Your task to perform on an android device: show emergency info Image 0: 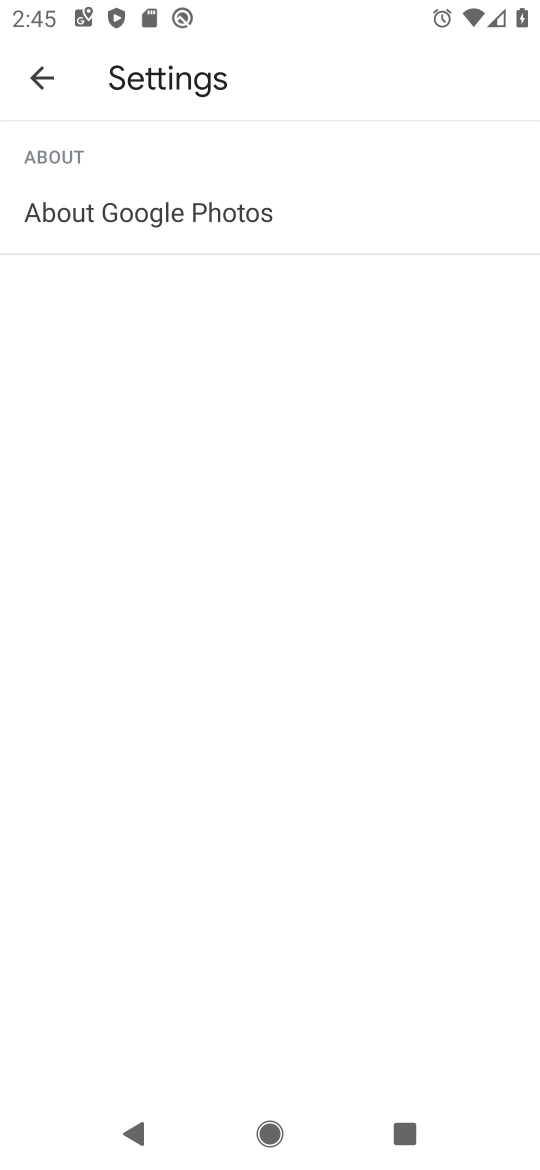
Step 0: press home button
Your task to perform on an android device: show emergency info Image 1: 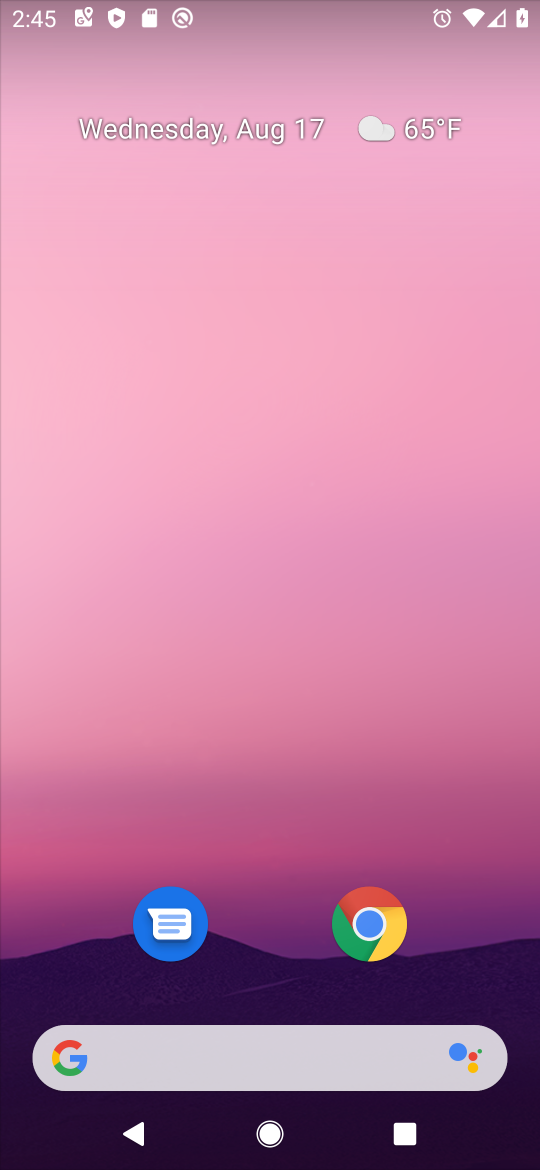
Step 1: drag from (217, 1058) to (150, 98)
Your task to perform on an android device: show emergency info Image 2: 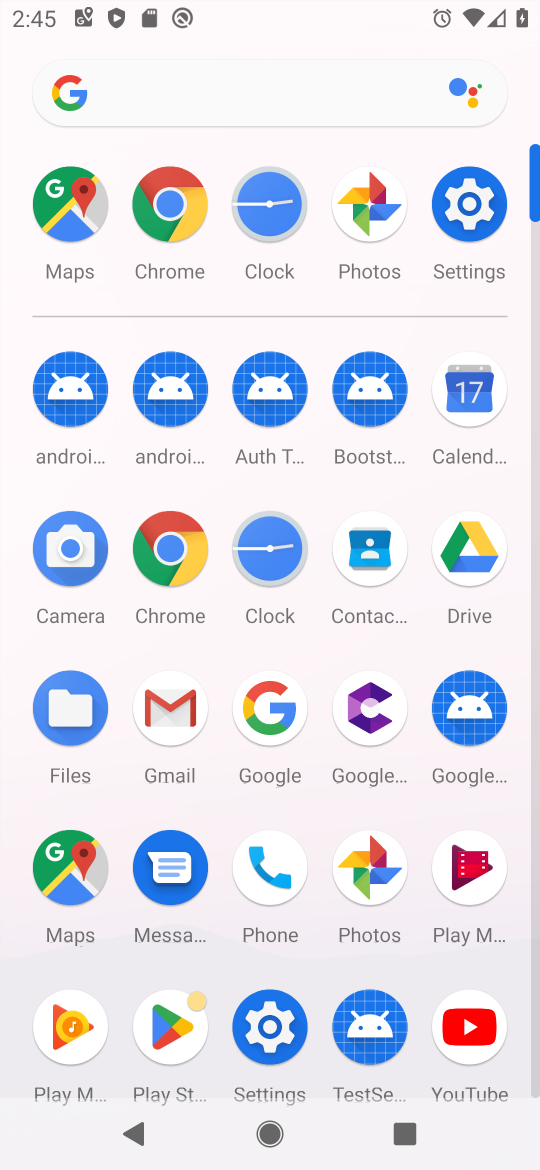
Step 2: click (471, 204)
Your task to perform on an android device: show emergency info Image 3: 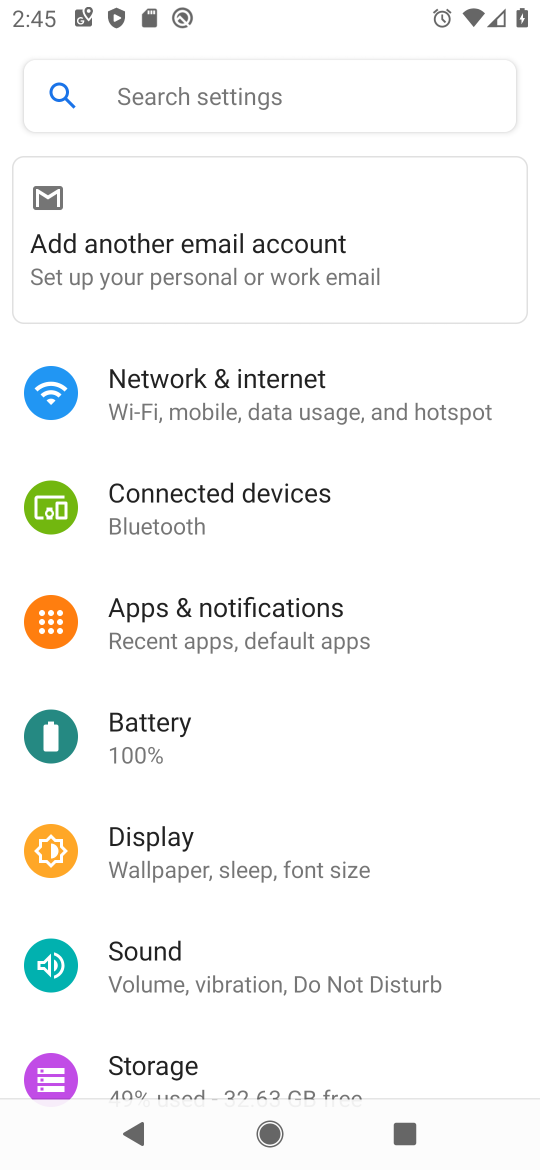
Step 3: drag from (250, 813) to (301, 587)
Your task to perform on an android device: show emergency info Image 4: 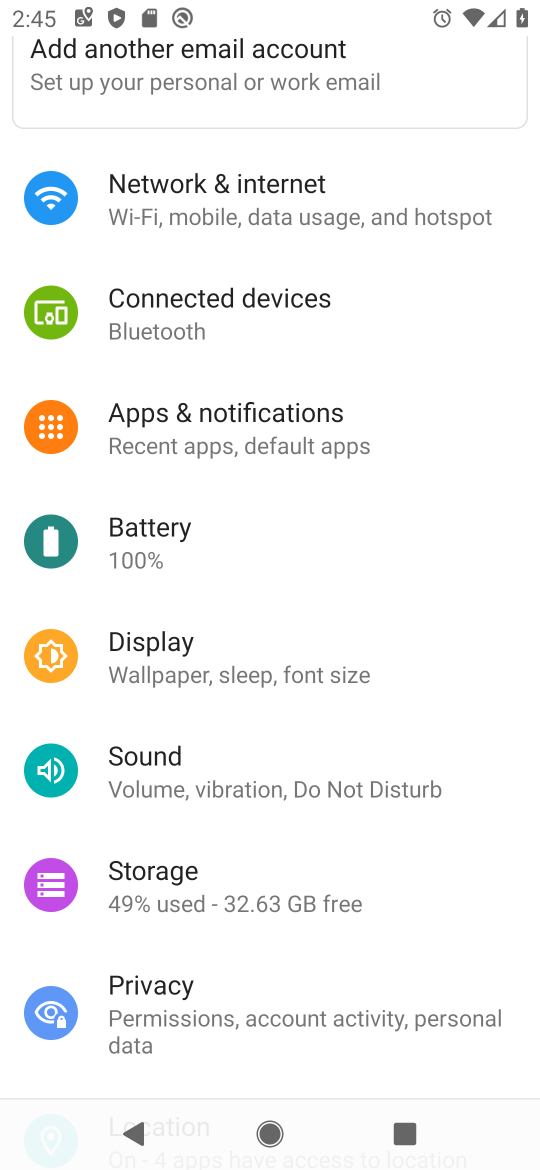
Step 4: drag from (215, 952) to (290, 774)
Your task to perform on an android device: show emergency info Image 5: 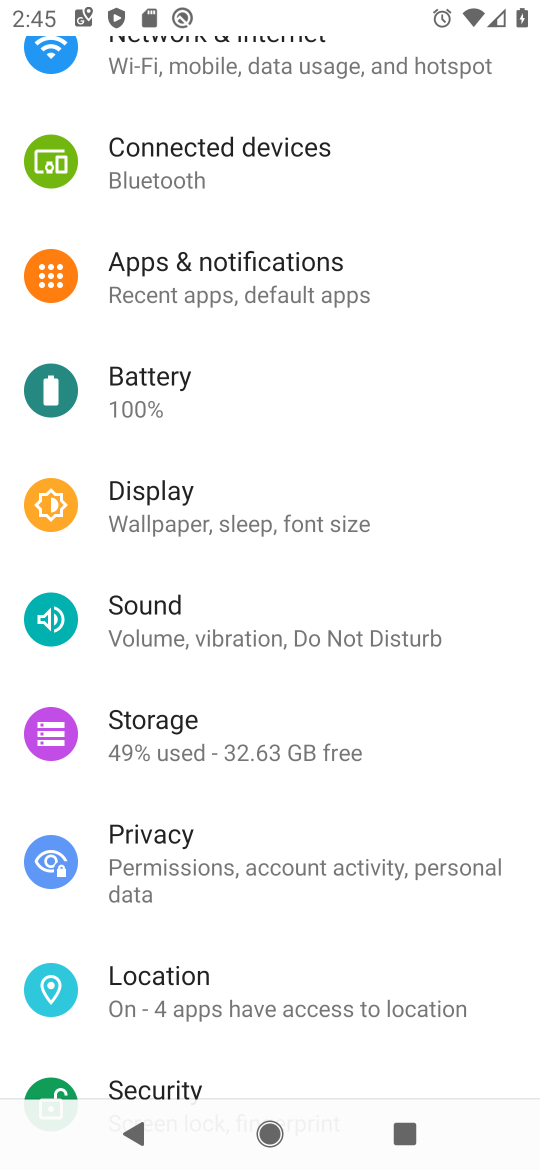
Step 5: drag from (238, 942) to (320, 745)
Your task to perform on an android device: show emergency info Image 6: 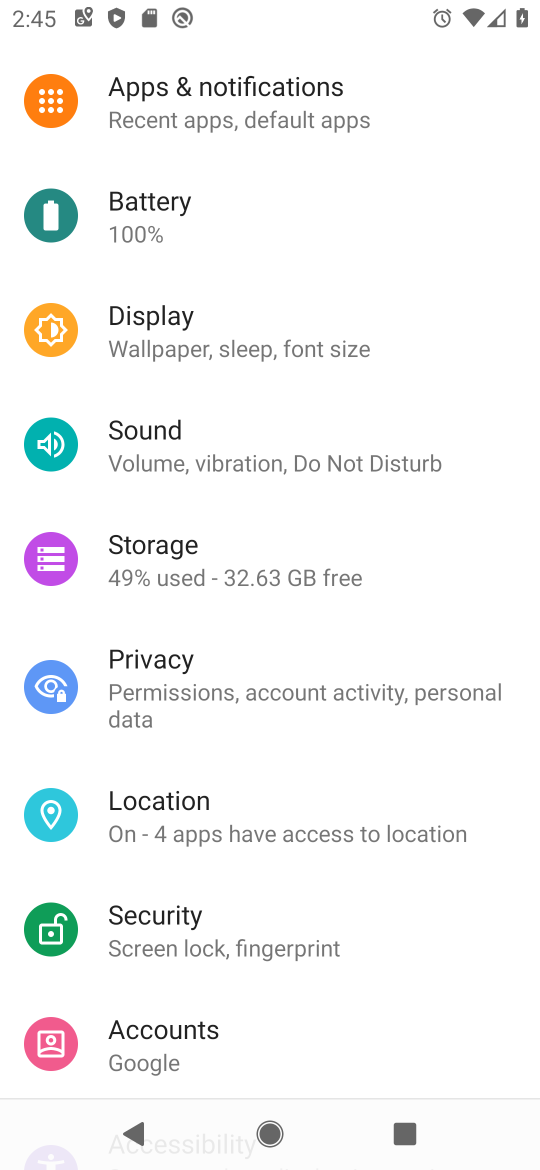
Step 6: drag from (243, 907) to (367, 728)
Your task to perform on an android device: show emergency info Image 7: 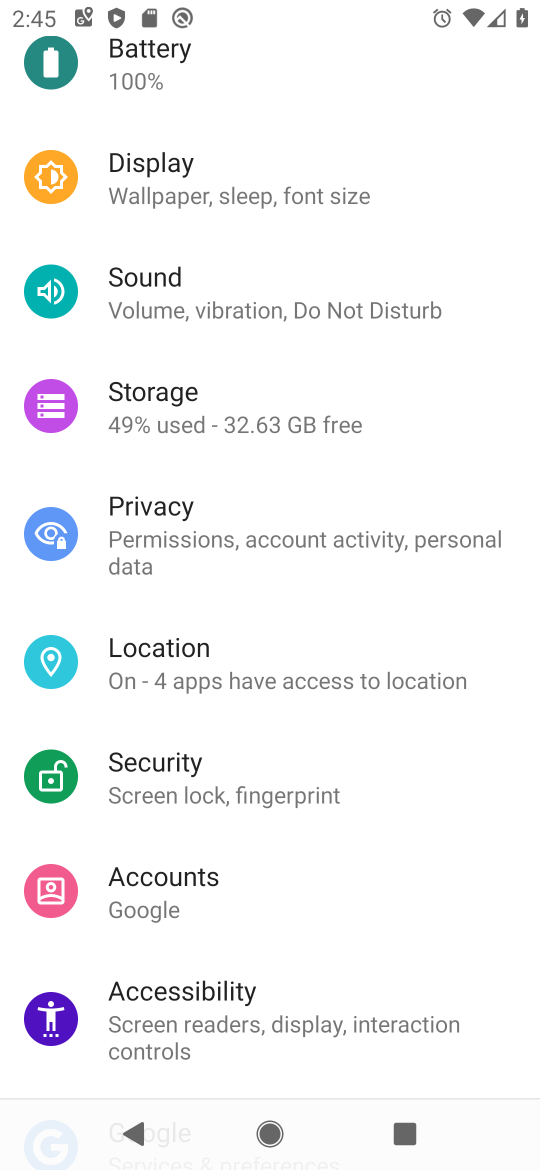
Step 7: drag from (237, 887) to (335, 698)
Your task to perform on an android device: show emergency info Image 8: 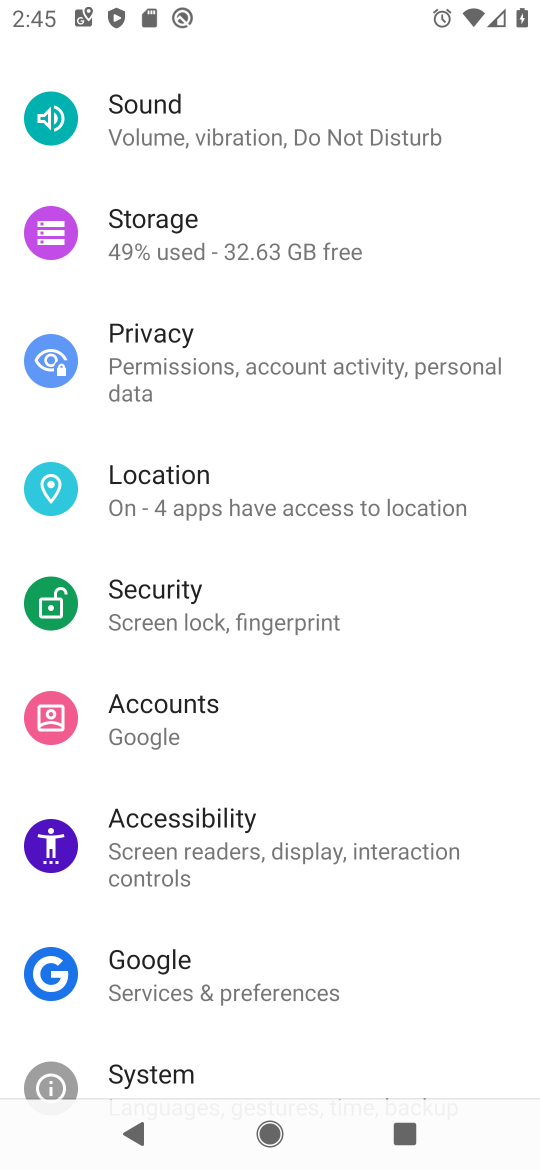
Step 8: drag from (275, 939) to (372, 717)
Your task to perform on an android device: show emergency info Image 9: 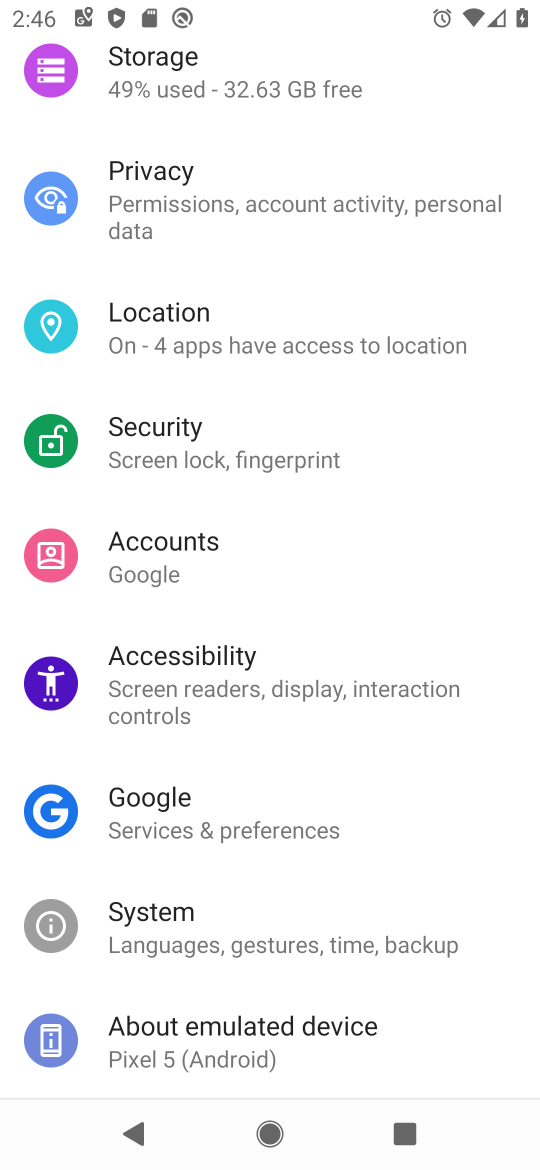
Step 9: click (246, 1028)
Your task to perform on an android device: show emergency info Image 10: 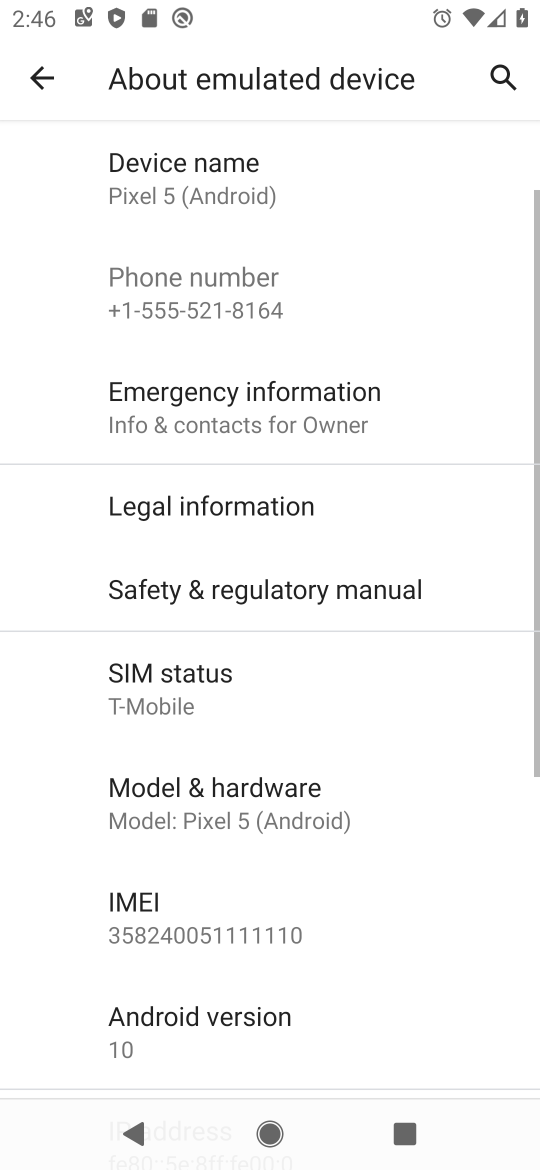
Step 10: click (281, 397)
Your task to perform on an android device: show emergency info Image 11: 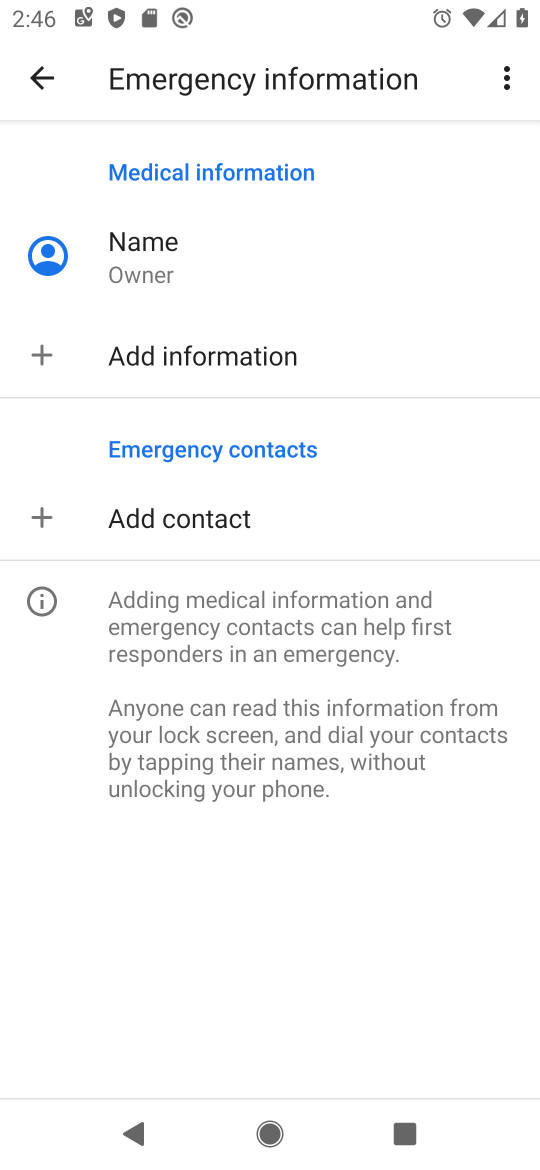
Step 11: task complete